Your task to perform on an android device: Open the calendar app, open the side menu, and click the "Day" option Image 0: 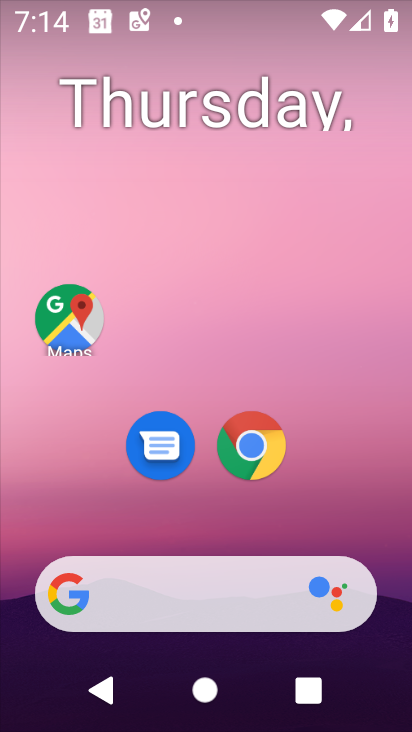
Step 0: drag from (394, 605) to (289, 41)
Your task to perform on an android device: Open the calendar app, open the side menu, and click the "Day" option Image 1: 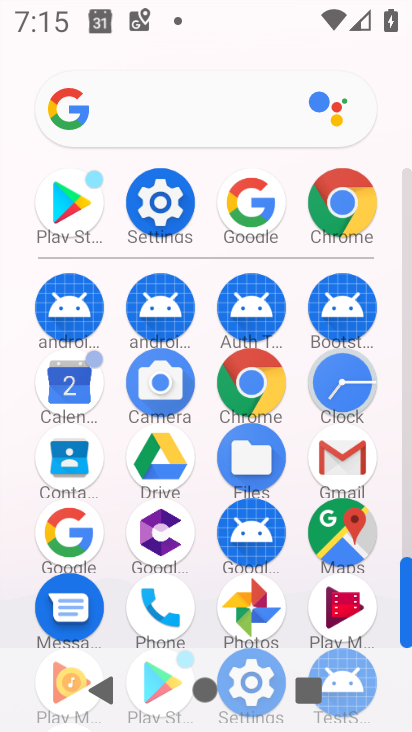
Step 1: click (72, 392)
Your task to perform on an android device: Open the calendar app, open the side menu, and click the "Day" option Image 2: 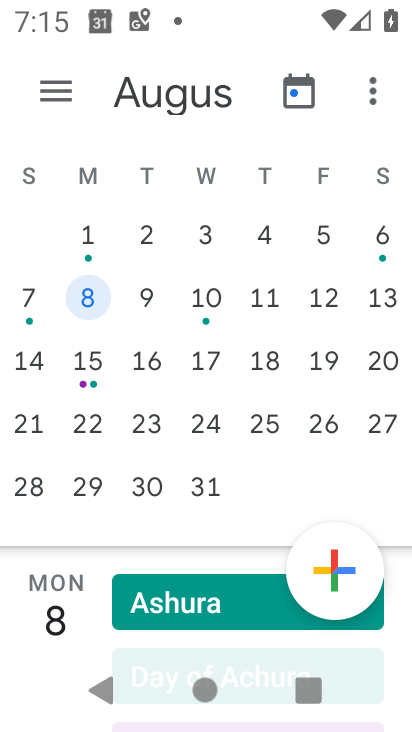
Step 2: click (49, 89)
Your task to perform on an android device: Open the calendar app, open the side menu, and click the "Day" option Image 3: 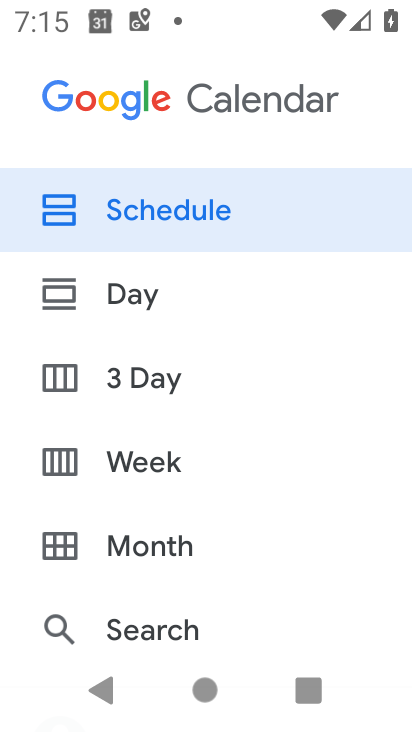
Step 3: click (170, 315)
Your task to perform on an android device: Open the calendar app, open the side menu, and click the "Day" option Image 4: 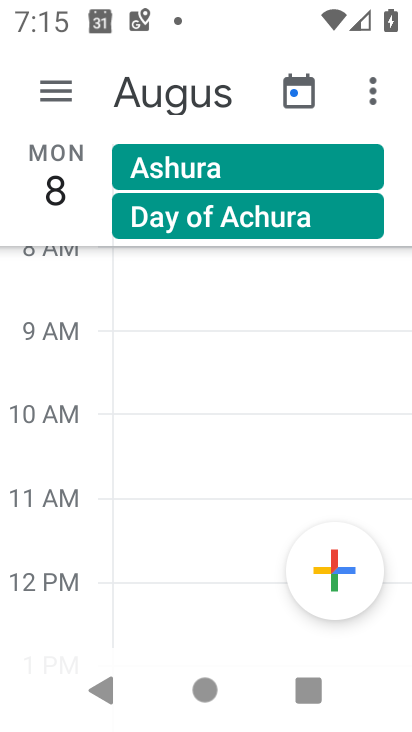
Step 4: task complete